Your task to perform on an android device: Open Amazon Image 0: 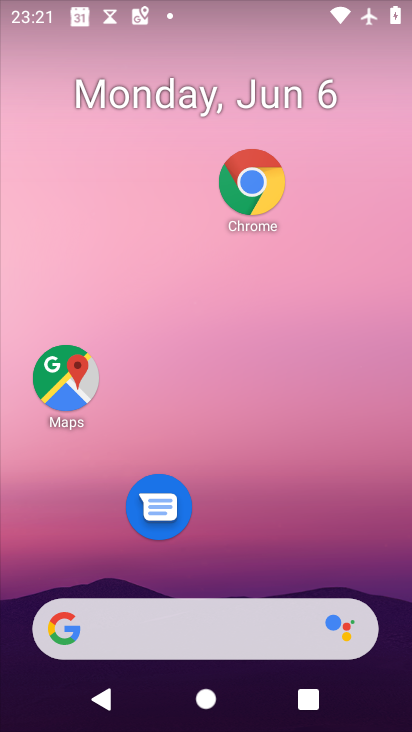
Step 0: click (250, 169)
Your task to perform on an android device: Open Amazon Image 1: 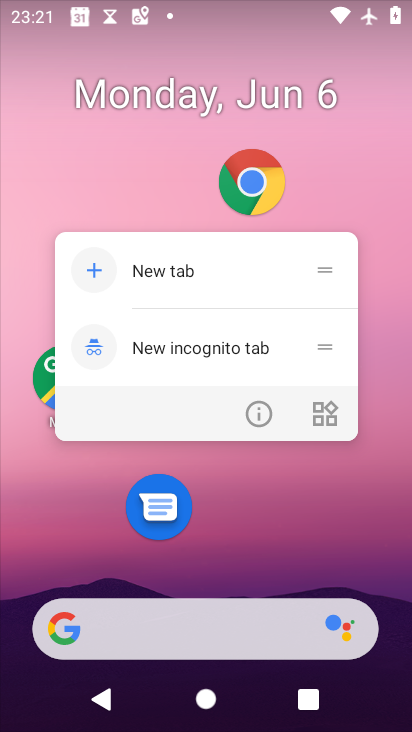
Step 1: click (269, 164)
Your task to perform on an android device: Open Amazon Image 2: 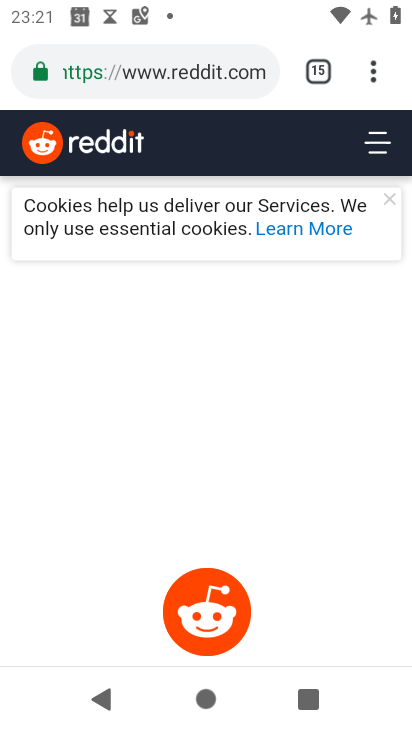
Step 2: click (376, 71)
Your task to perform on an android device: Open Amazon Image 3: 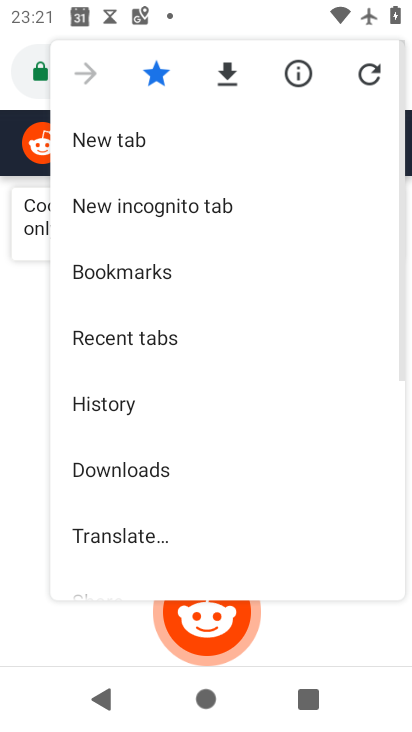
Step 3: click (123, 141)
Your task to perform on an android device: Open Amazon Image 4: 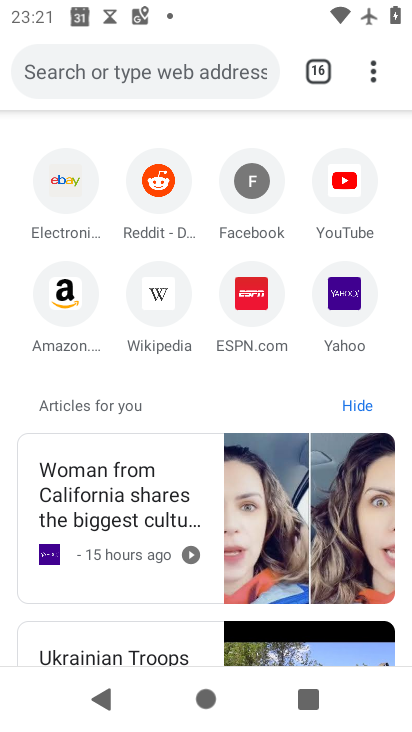
Step 4: click (66, 277)
Your task to perform on an android device: Open Amazon Image 5: 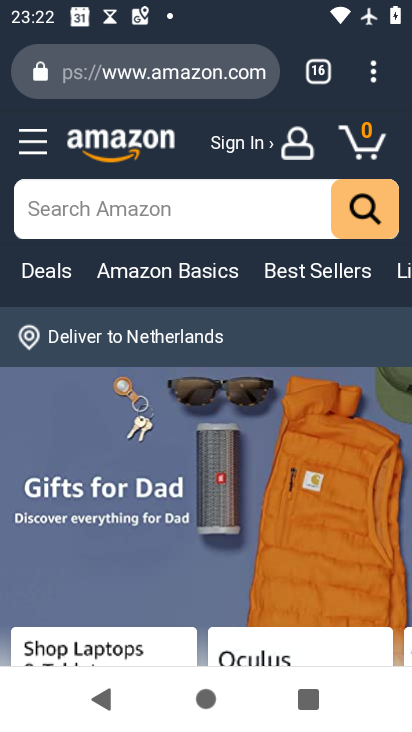
Step 5: task complete